Your task to perform on an android device: Search for "logitech g933" on target.com, select the first entry, add it to the cart, then select checkout. Image 0: 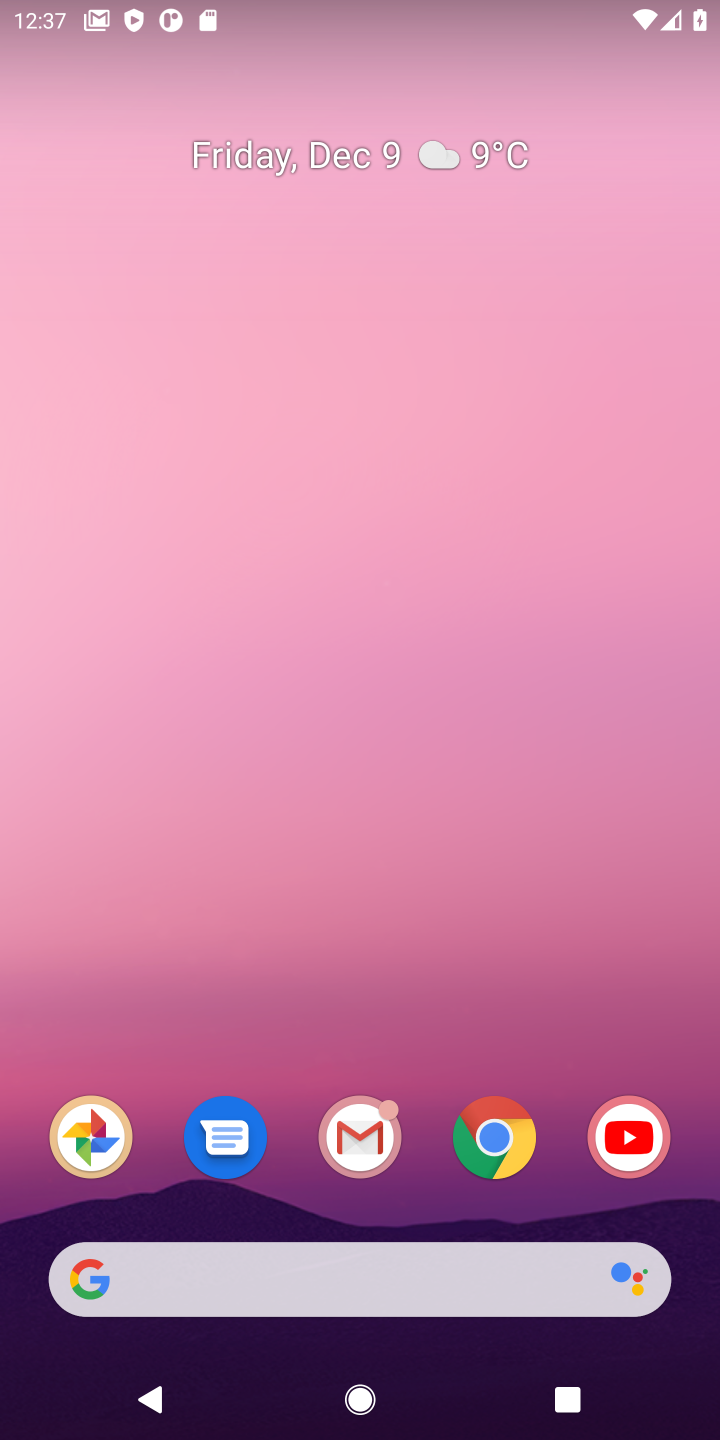
Step 0: click (290, 1275)
Your task to perform on an android device: Search for "logitech g933" on target.com, select the first entry, add it to the cart, then select checkout. Image 1: 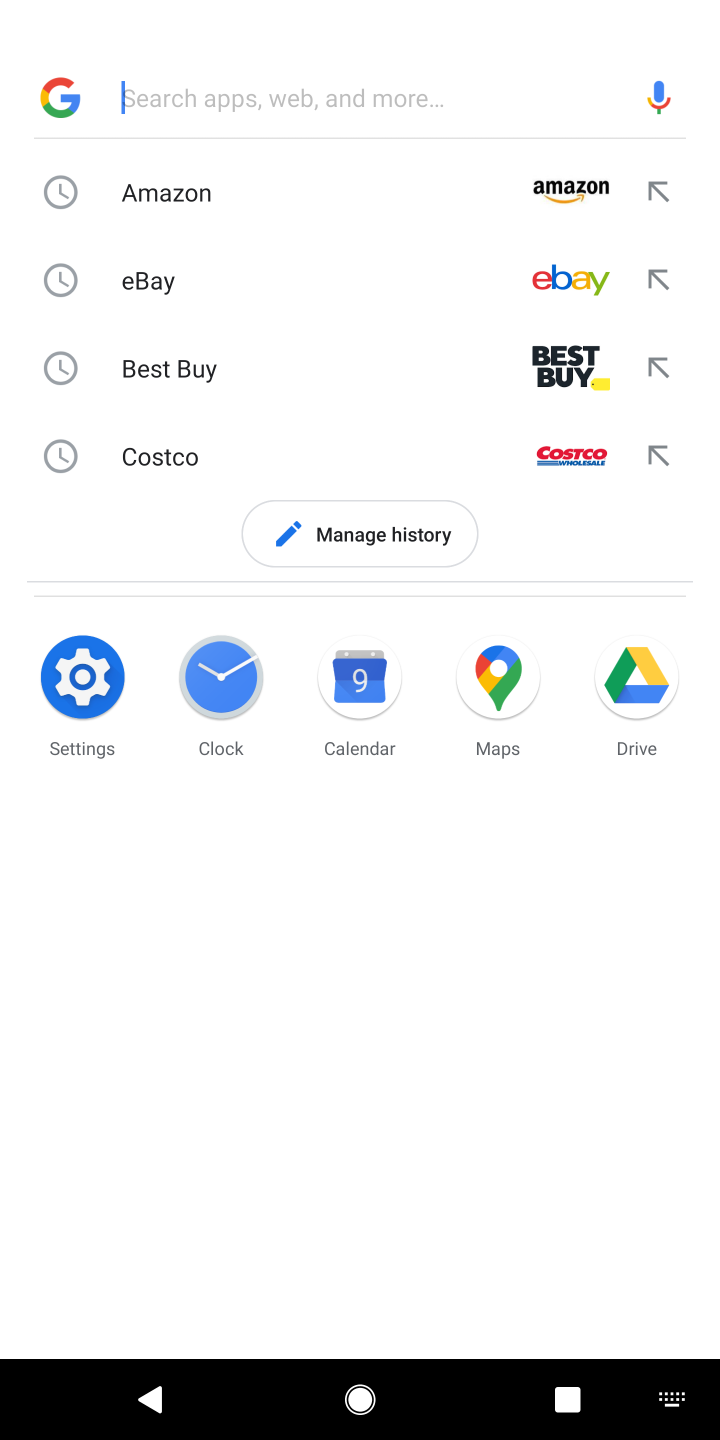
Step 1: type "target"
Your task to perform on an android device: Search for "logitech g933" on target.com, select the first entry, add it to the cart, then select checkout. Image 2: 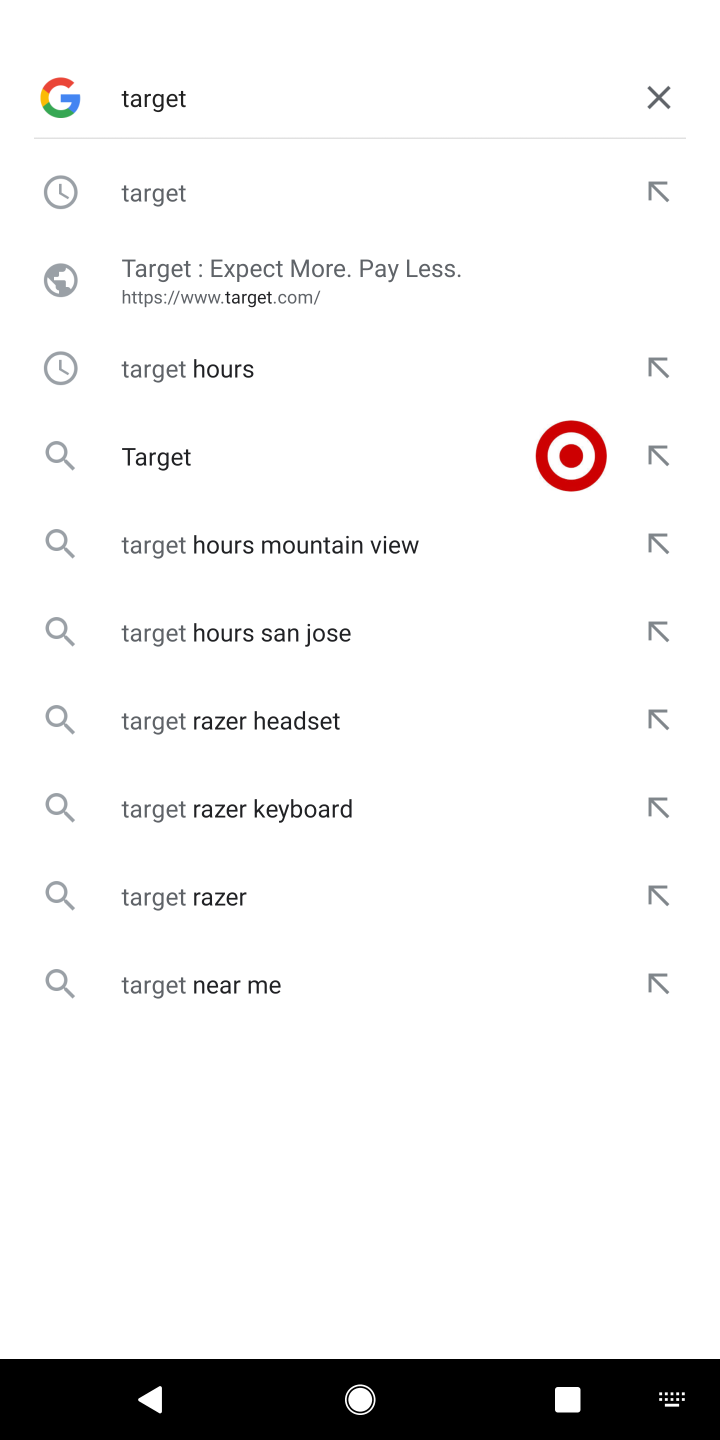
Step 2: click (229, 431)
Your task to perform on an android device: Search for "logitech g933" on target.com, select the first entry, add it to the cart, then select checkout. Image 3: 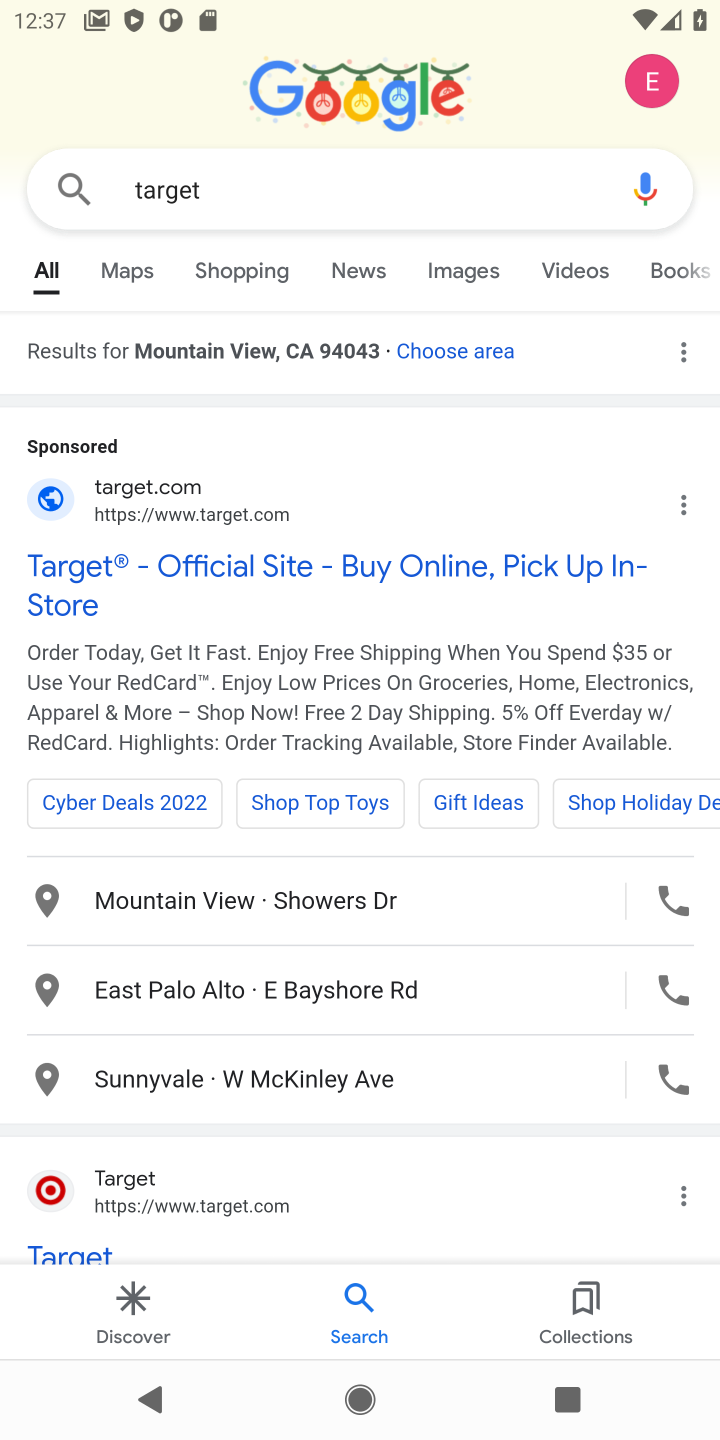
Step 3: click (153, 548)
Your task to perform on an android device: Search for "logitech g933" on target.com, select the first entry, add it to the cart, then select checkout. Image 4: 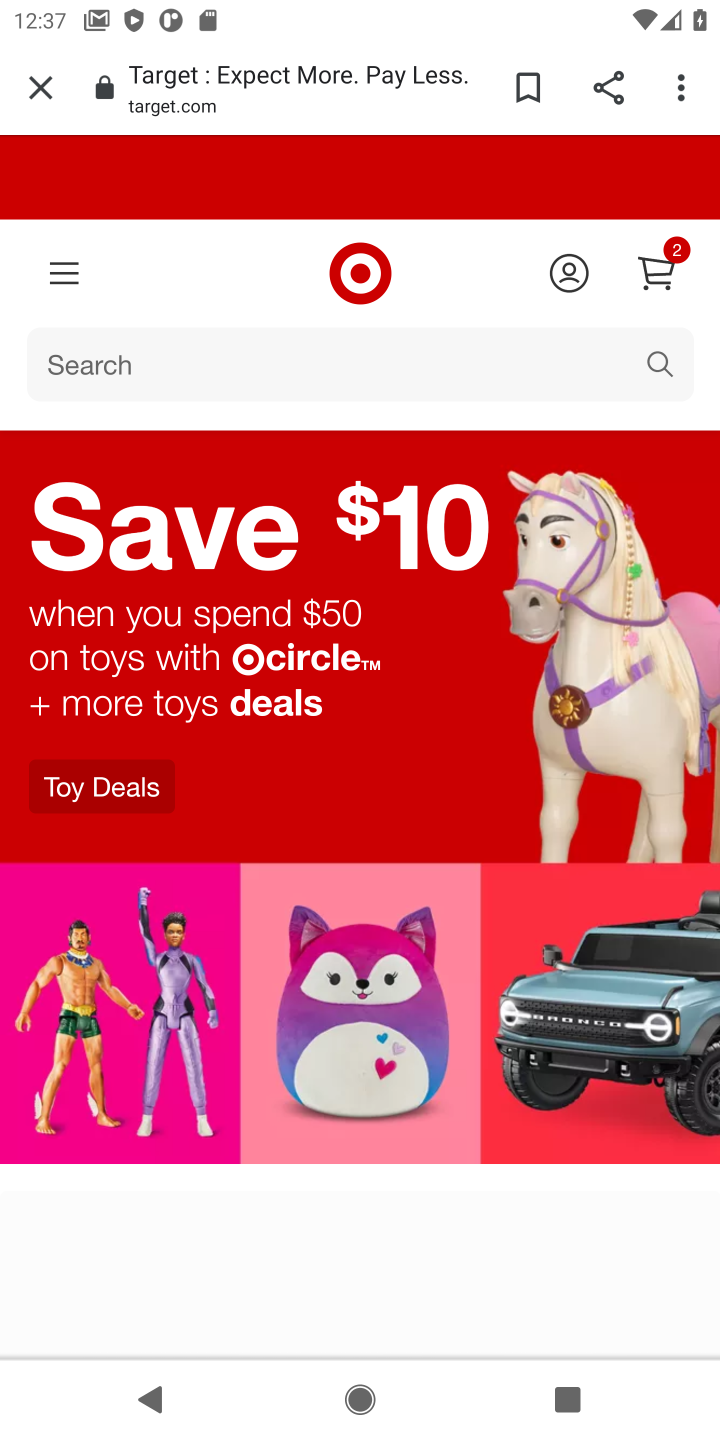
Step 4: task complete